Your task to perform on an android device: Show me productivity apps on the Play Store Image 0: 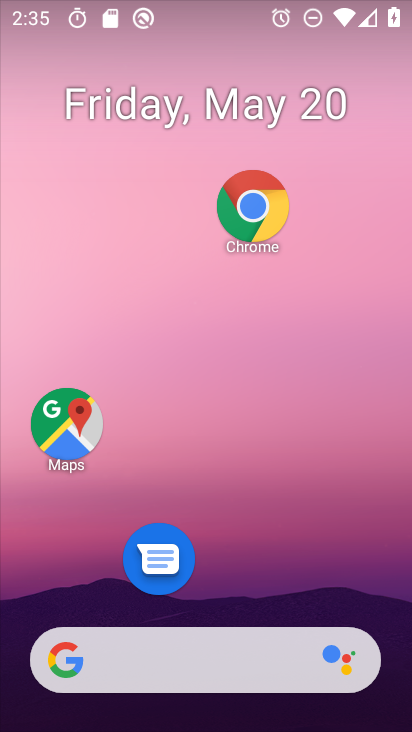
Step 0: drag from (214, 621) to (105, 61)
Your task to perform on an android device: Show me productivity apps on the Play Store Image 1: 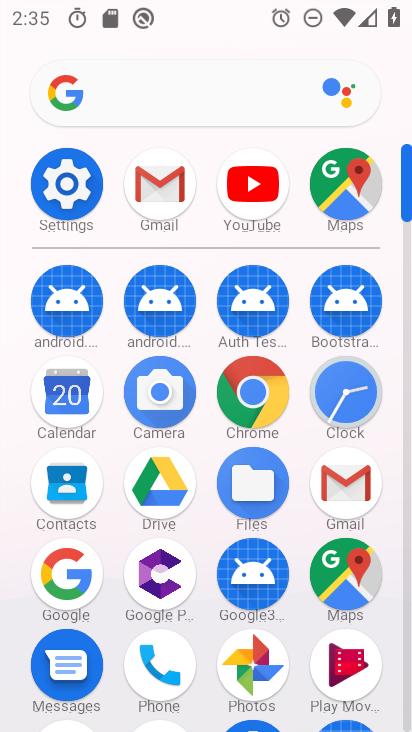
Step 1: drag from (205, 630) to (224, 276)
Your task to perform on an android device: Show me productivity apps on the Play Store Image 2: 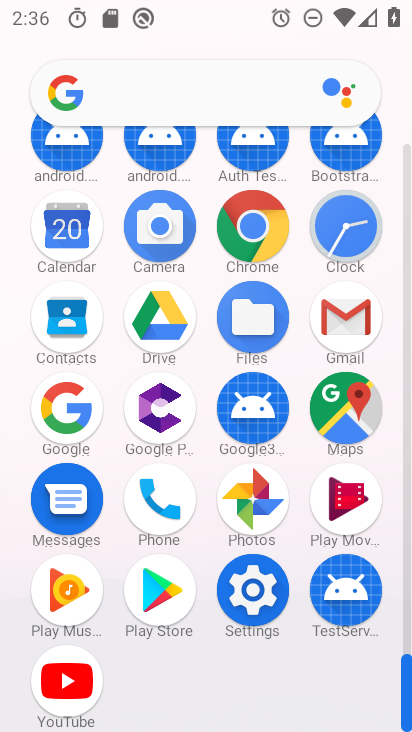
Step 2: click (161, 603)
Your task to perform on an android device: Show me productivity apps on the Play Store Image 3: 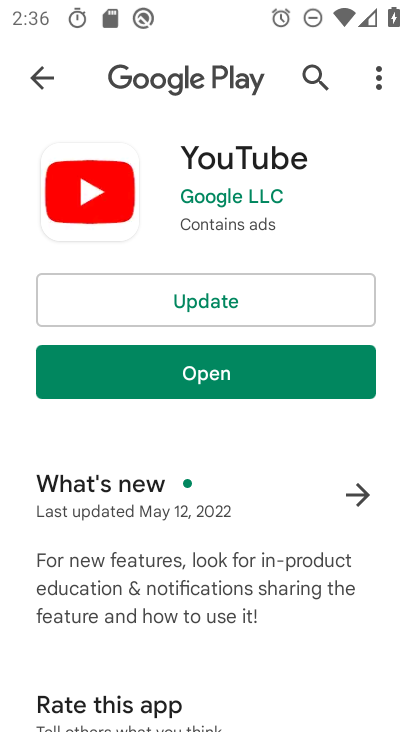
Step 3: click (19, 70)
Your task to perform on an android device: Show me productivity apps on the Play Store Image 4: 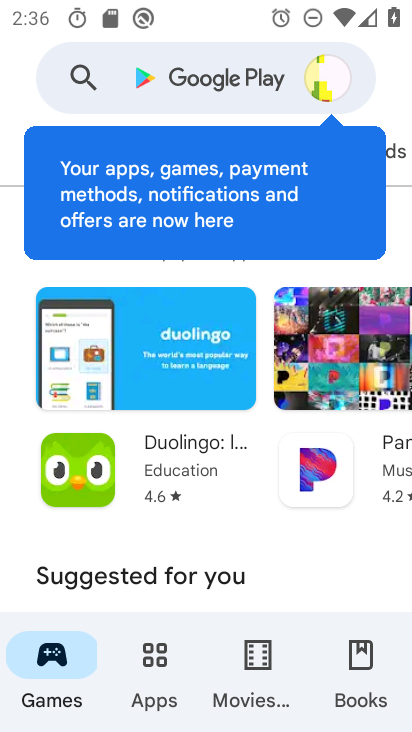
Step 4: click (159, 676)
Your task to perform on an android device: Show me productivity apps on the Play Store Image 5: 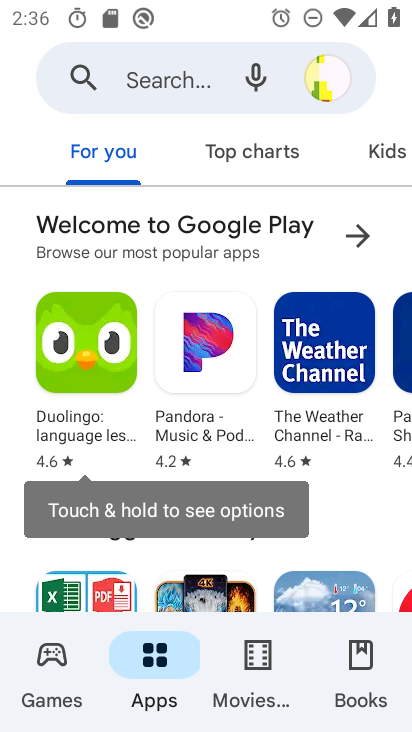
Step 5: drag from (319, 160) to (4, 183)
Your task to perform on an android device: Show me productivity apps on the Play Store Image 6: 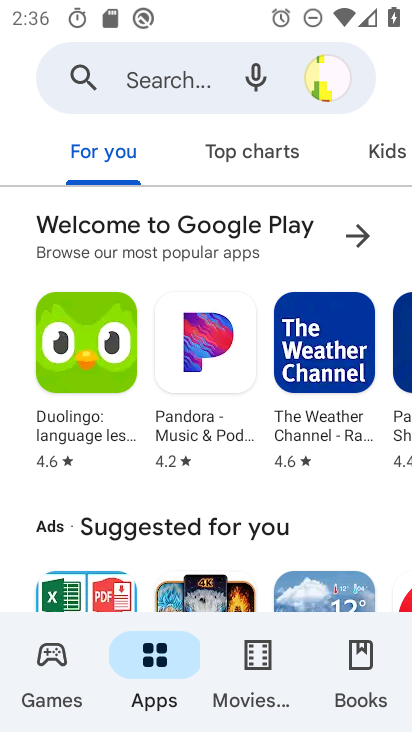
Step 6: drag from (390, 155) to (86, 179)
Your task to perform on an android device: Show me productivity apps on the Play Store Image 7: 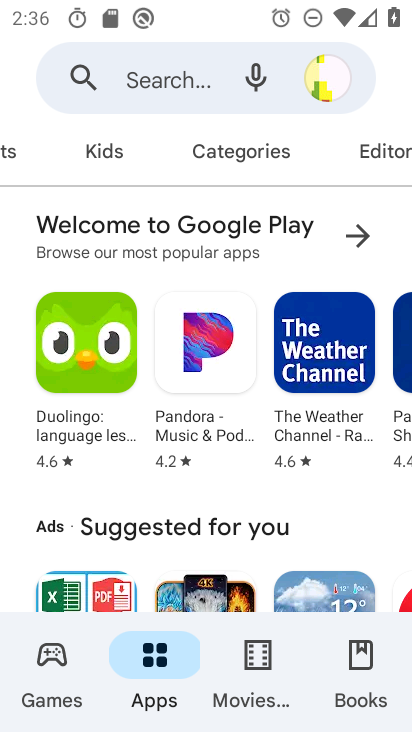
Step 7: click (182, 147)
Your task to perform on an android device: Show me productivity apps on the Play Store Image 8: 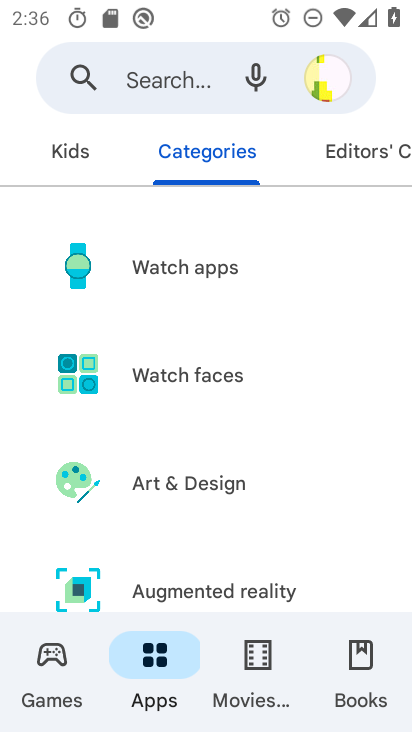
Step 8: drag from (257, 608) to (156, 63)
Your task to perform on an android device: Show me productivity apps on the Play Store Image 9: 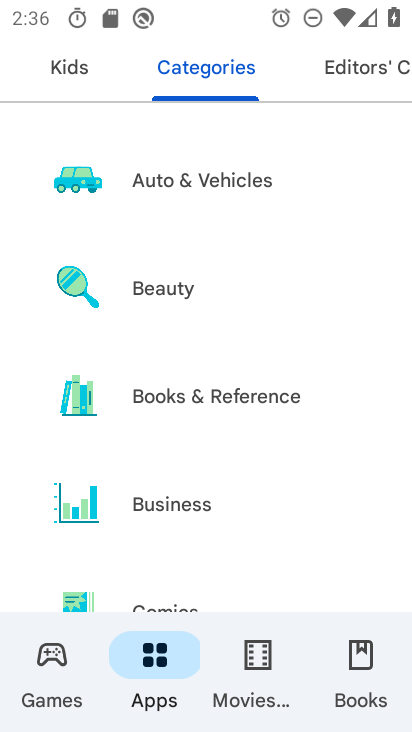
Step 9: drag from (275, 552) to (178, 110)
Your task to perform on an android device: Show me productivity apps on the Play Store Image 10: 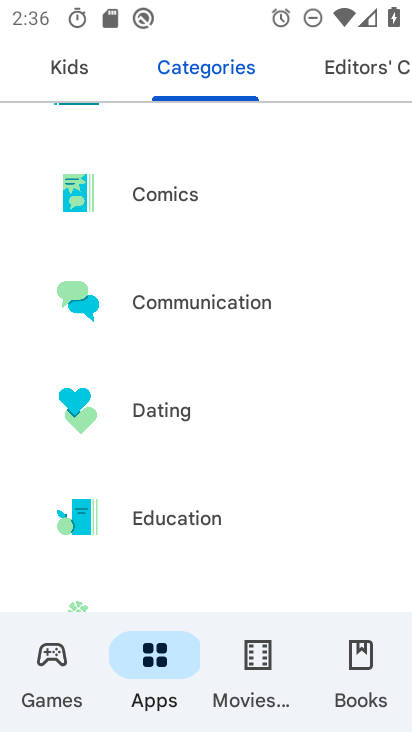
Step 10: drag from (253, 515) to (155, 74)
Your task to perform on an android device: Show me productivity apps on the Play Store Image 11: 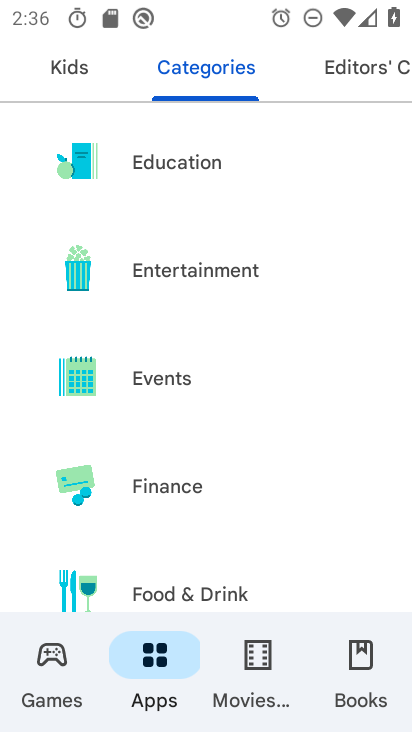
Step 11: drag from (170, 543) to (101, 122)
Your task to perform on an android device: Show me productivity apps on the Play Store Image 12: 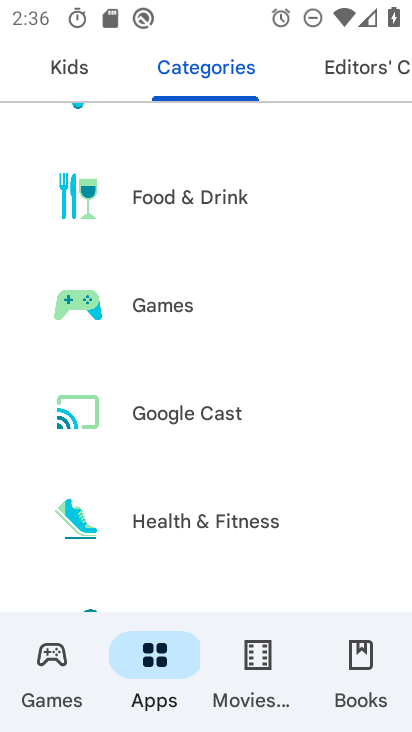
Step 12: drag from (301, 537) to (255, 134)
Your task to perform on an android device: Show me productivity apps on the Play Store Image 13: 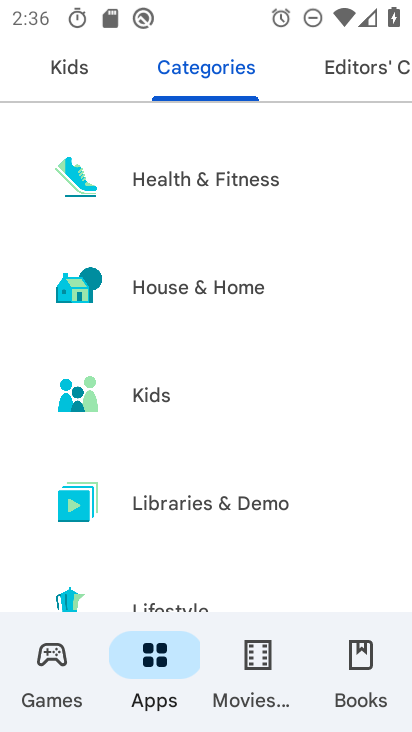
Step 13: drag from (261, 517) to (235, 86)
Your task to perform on an android device: Show me productivity apps on the Play Store Image 14: 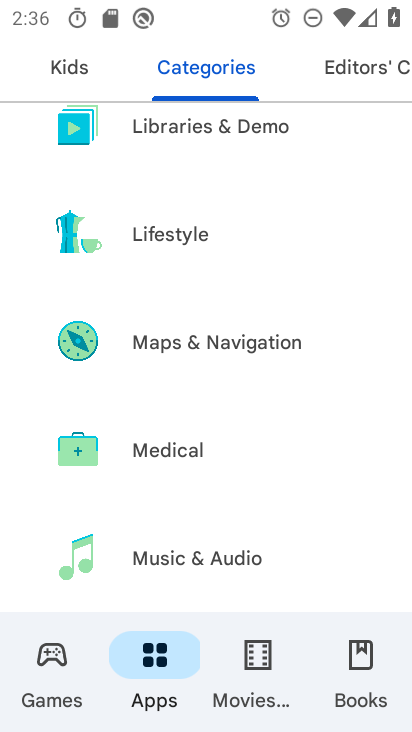
Step 14: drag from (217, 589) to (173, 176)
Your task to perform on an android device: Show me productivity apps on the Play Store Image 15: 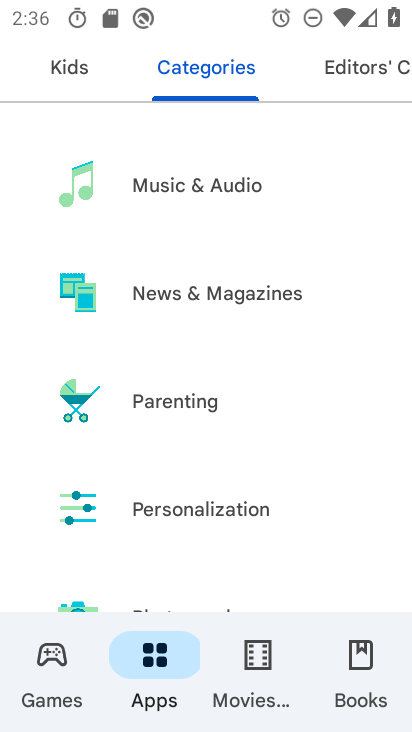
Step 15: drag from (168, 484) to (119, 152)
Your task to perform on an android device: Show me productivity apps on the Play Store Image 16: 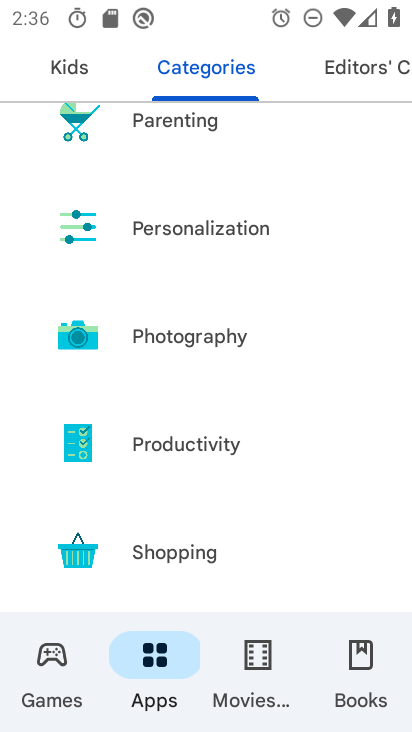
Step 16: click (182, 448)
Your task to perform on an android device: Show me productivity apps on the Play Store Image 17: 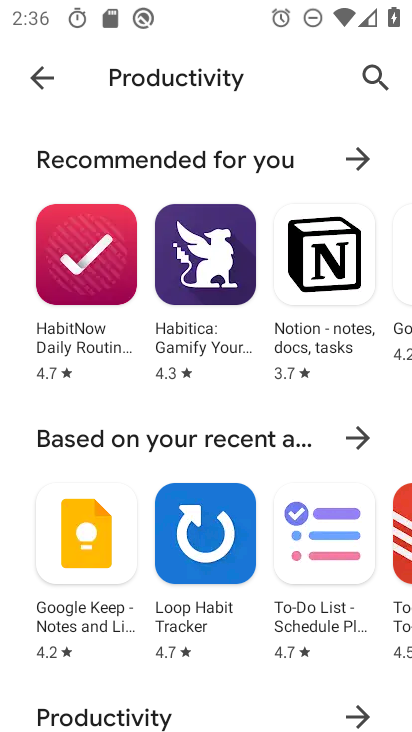
Step 17: task complete